Your task to perform on an android device: Is it going to rain this weekend? Image 0: 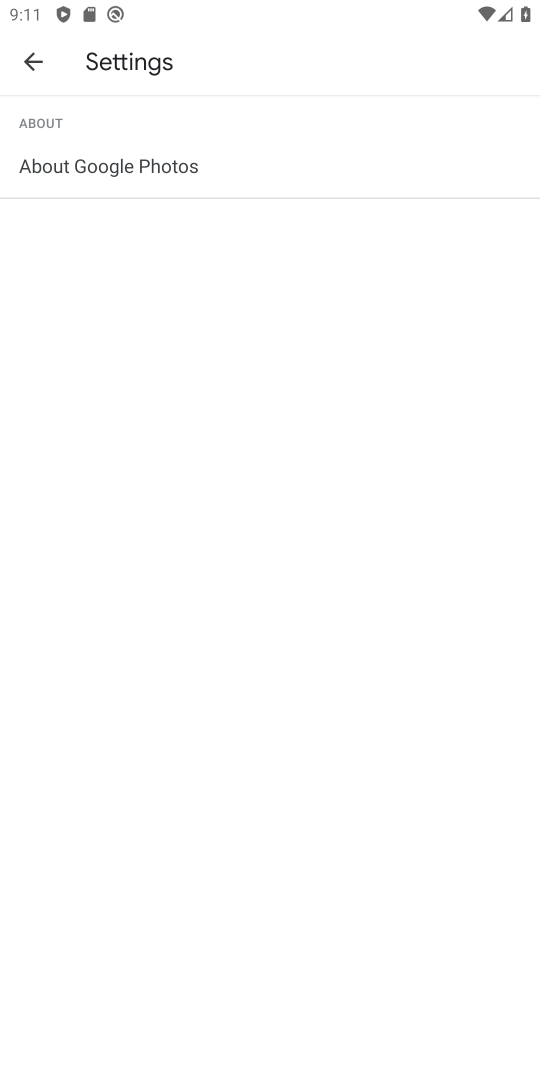
Step 0: press home button
Your task to perform on an android device: Is it going to rain this weekend? Image 1: 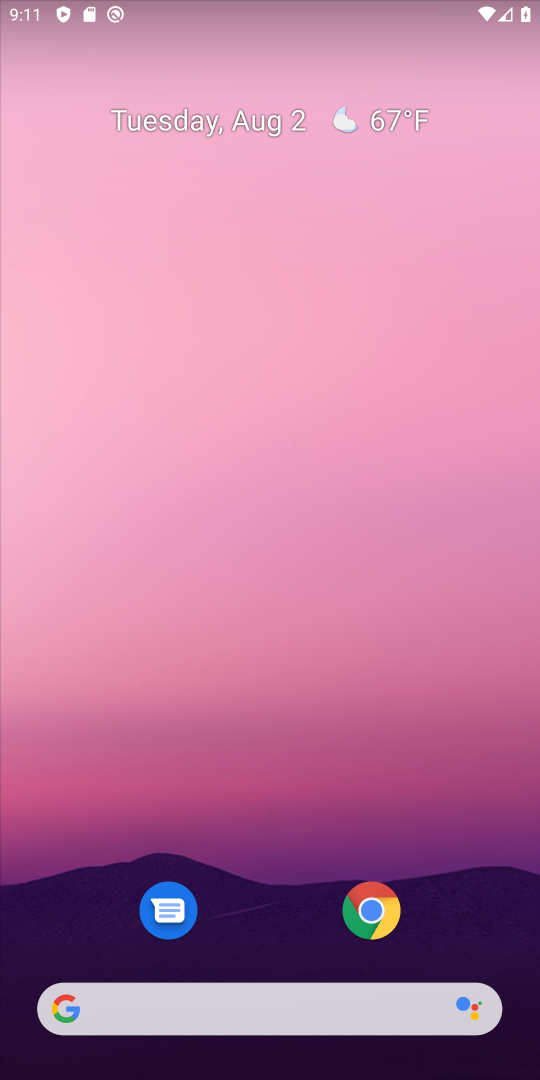
Step 1: drag from (276, 878) to (264, 446)
Your task to perform on an android device: Is it going to rain this weekend? Image 2: 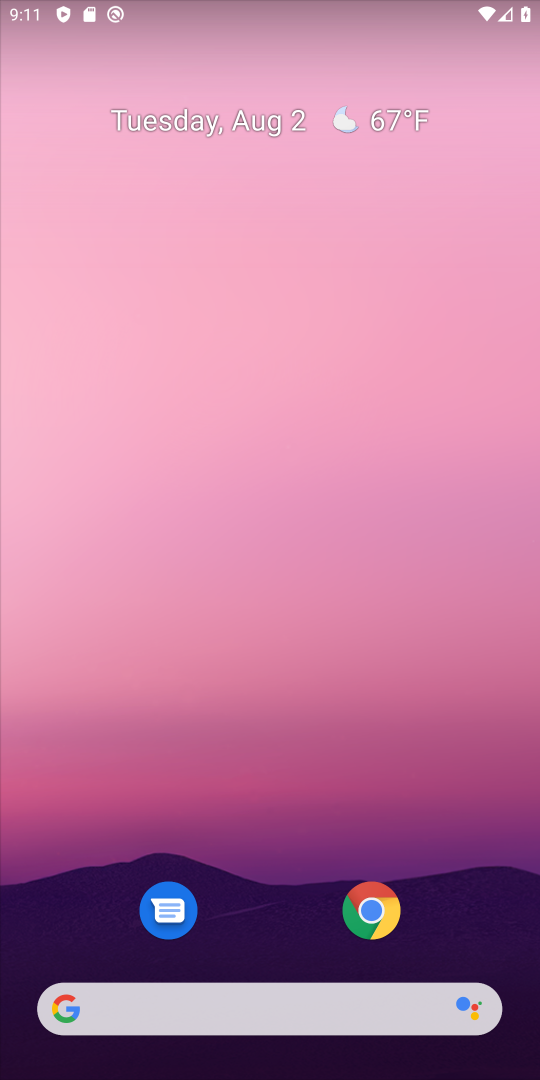
Step 2: drag from (327, 922) to (299, 293)
Your task to perform on an android device: Is it going to rain this weekend? Image 3: 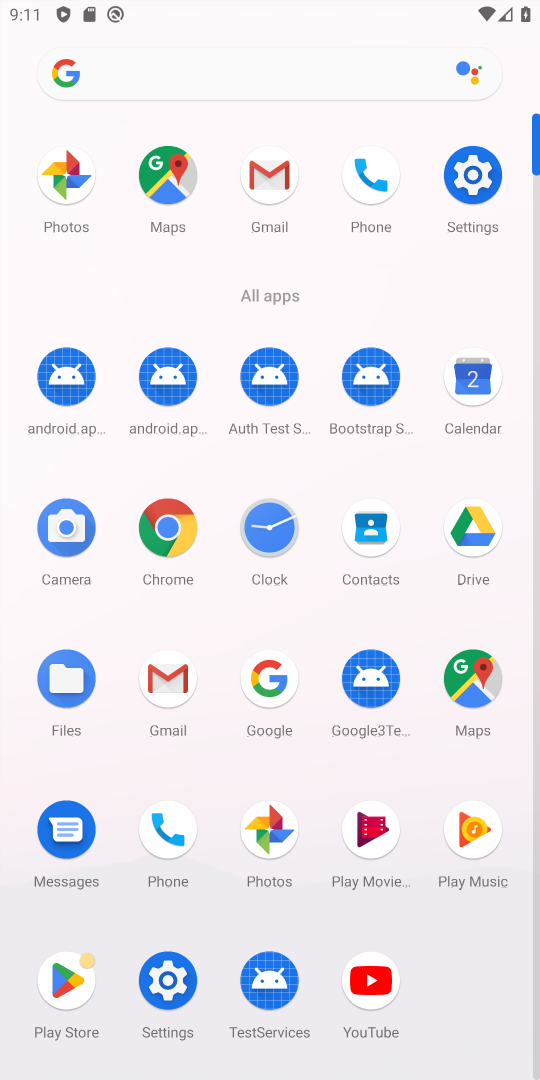
Step 3: click (158, 538)
Your task to perform on an android device: Is it going to rain this weekend? Image 4: 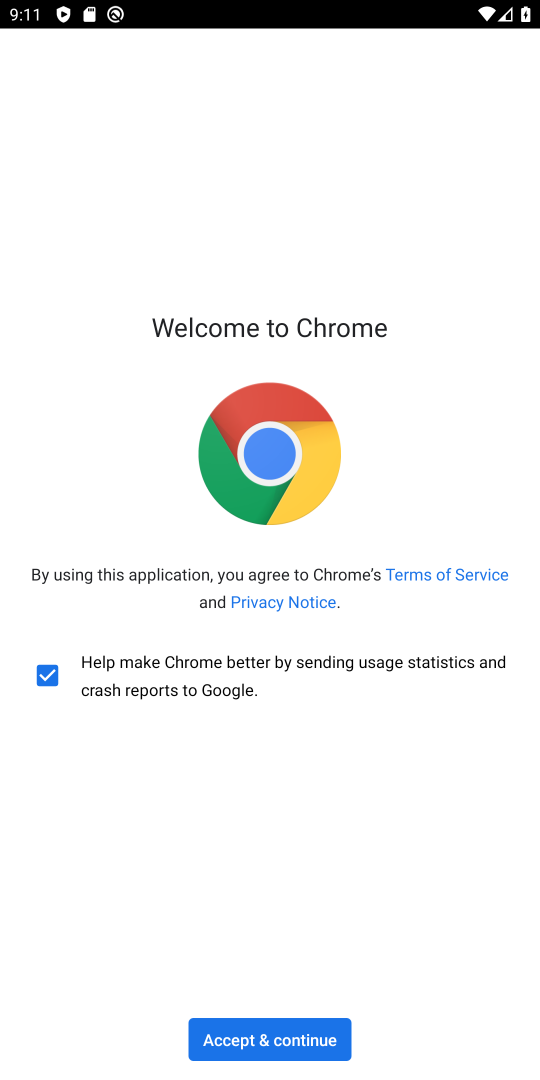
Step 4: click (269, 1040)
Your task to perform on an android device: Is it going to rain this weekend? Image 5: 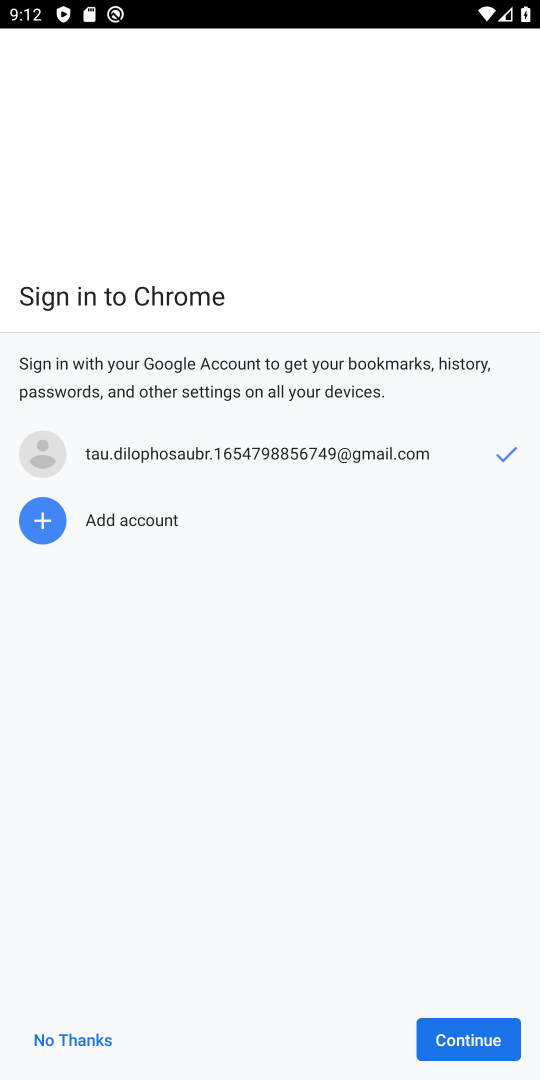
Step 5: click (478, 1034)
Your task to perform on an android device: Is it going to rain this weekend? Image 6: 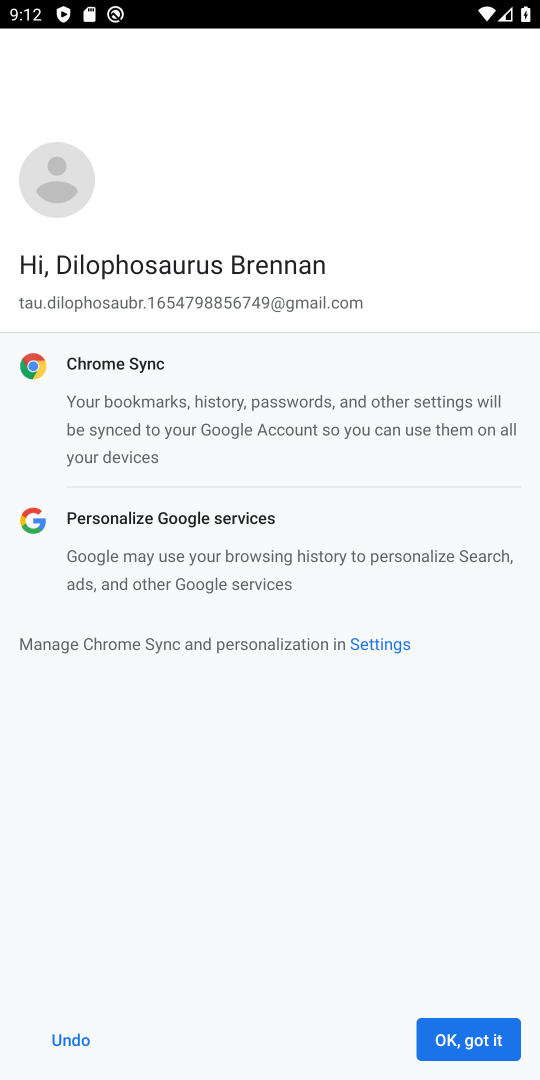
Step 6: click (478, 1034)
Your task to perform on an android device: Is it going to rain this weekend? Image 7: 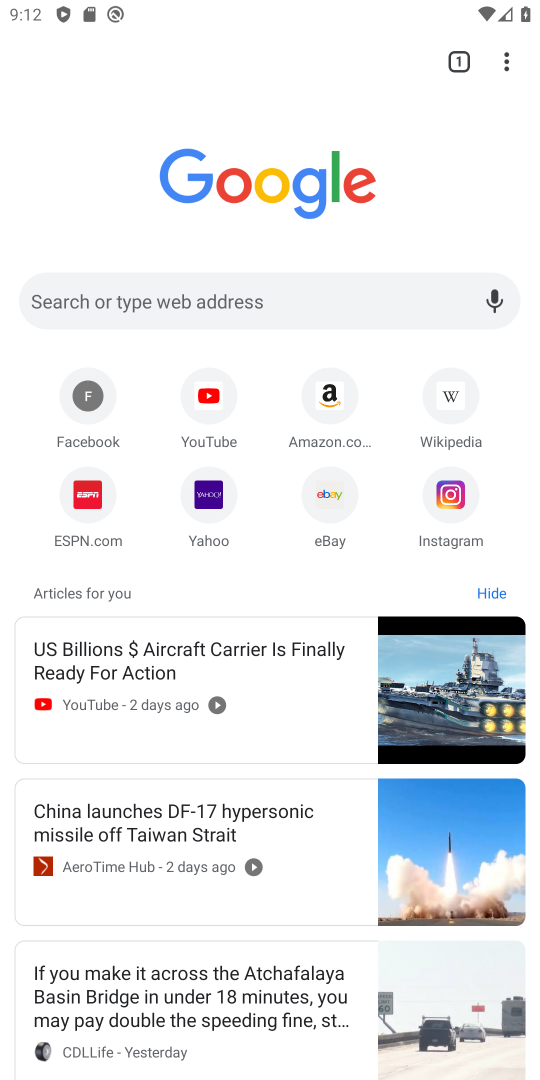
Step 7: click (337, 292)
Your task to perform on an android device: Is it going to rain this weekend? Image 8: 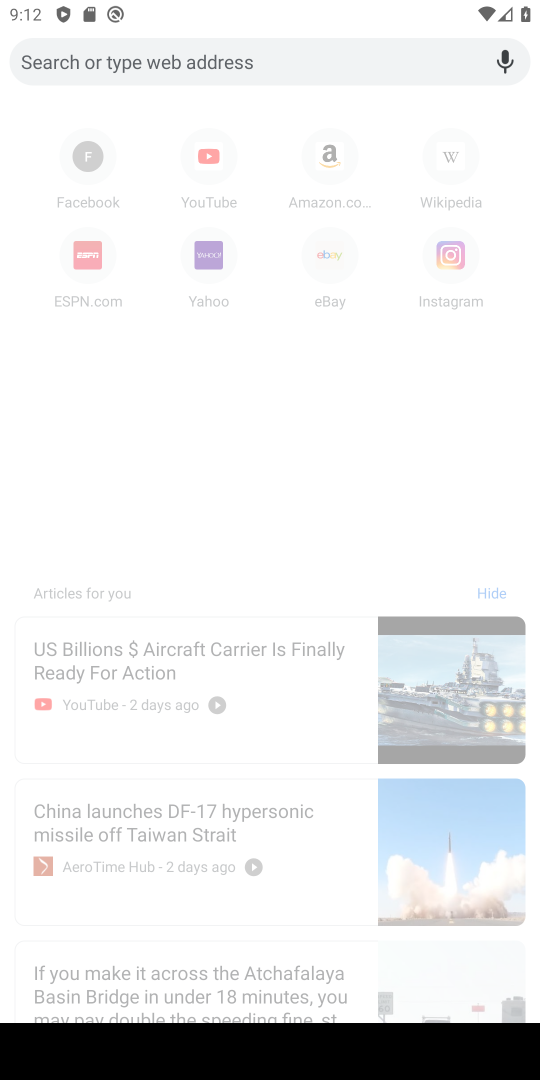
Step 8: type "Is it going to rain this weekend? "
Your task to perform on an android device: Is it going to rain this weekend? Image 9: 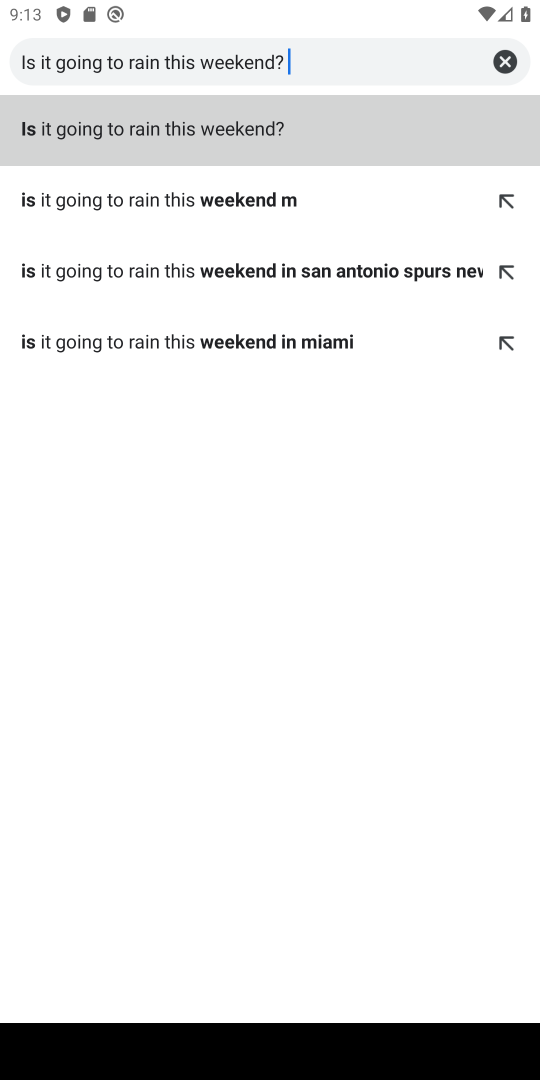
Step 9: click (178, 202)
Your task to perform on an android device: Is it going to rain this weekend? Image 10: 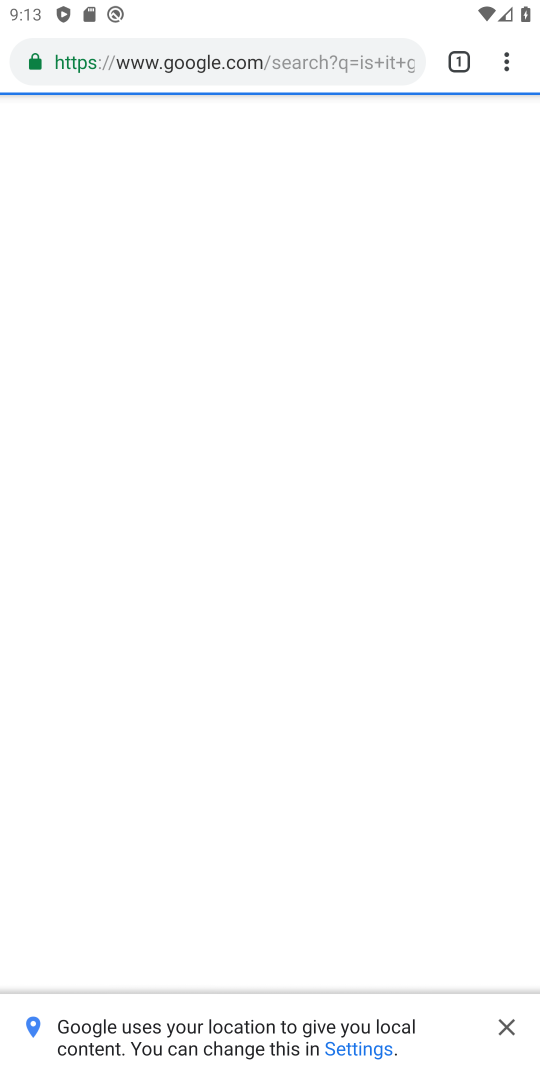
Step 10: task complete